Your task to perform on an android device: Open Reddit.com Image 0: 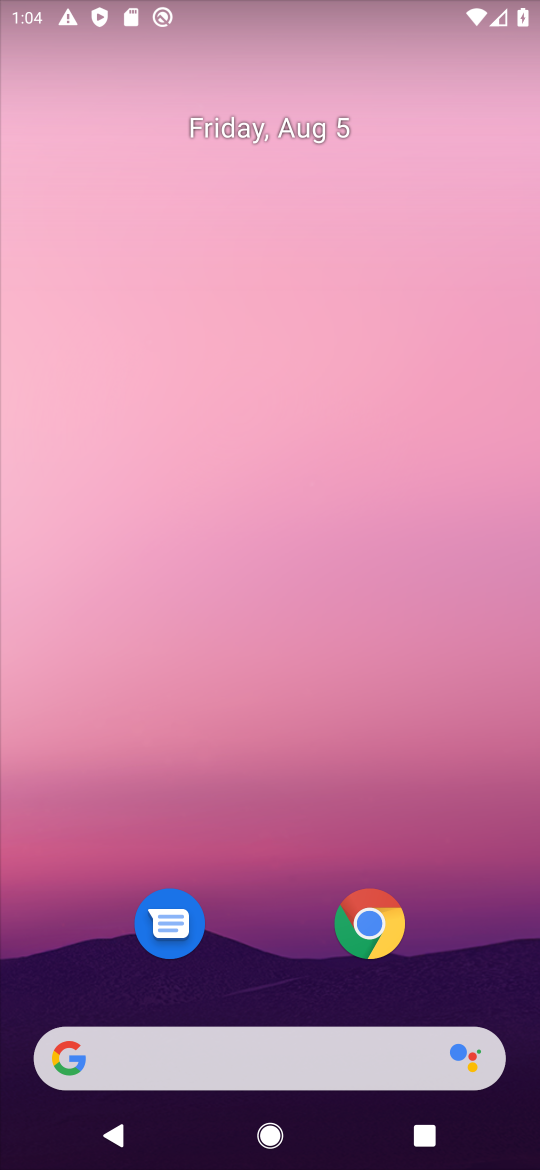
Step 0: click (364, 921)
Your task to perform on an android device: Open Reddit.com Image 1: 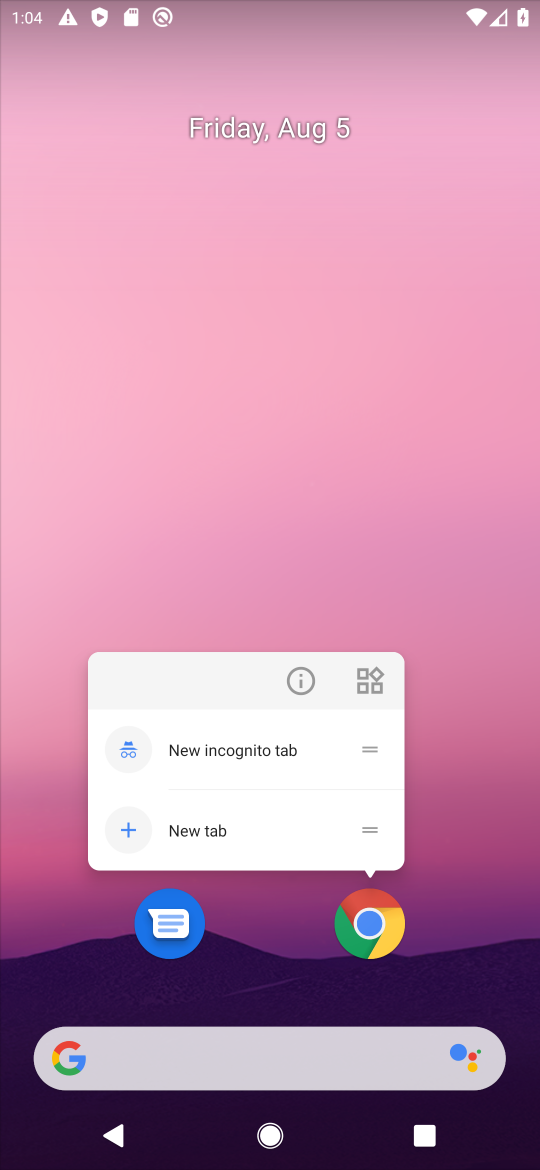
Step 1: click (374, 924)
Your task to perform on an android device: Open Reddit.com Image 2: 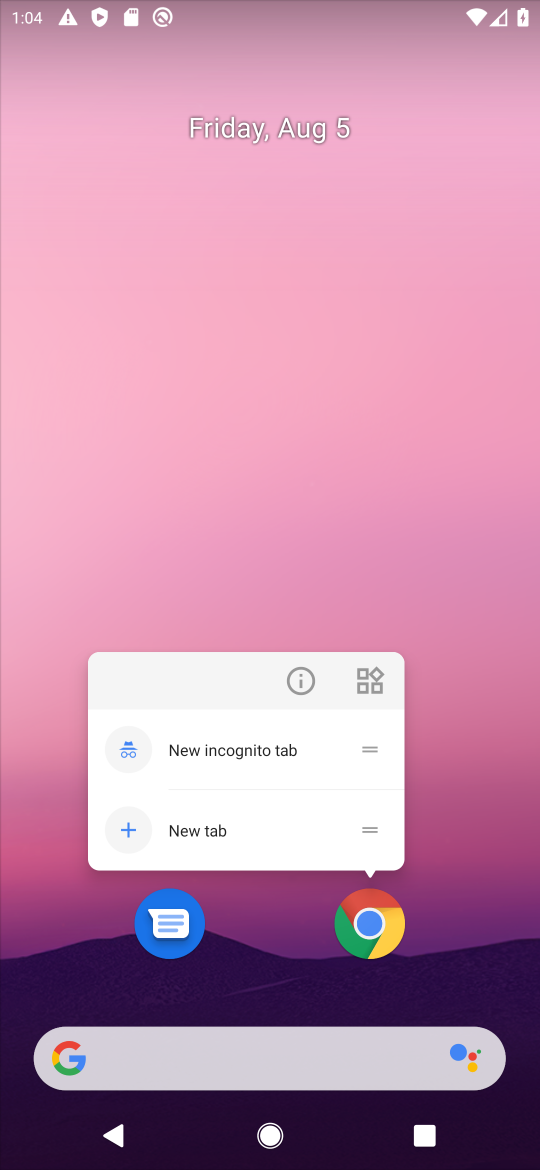
Step 2: click (374, 930)
Your task to perform on an android device: Open Reddit.com Image 3: 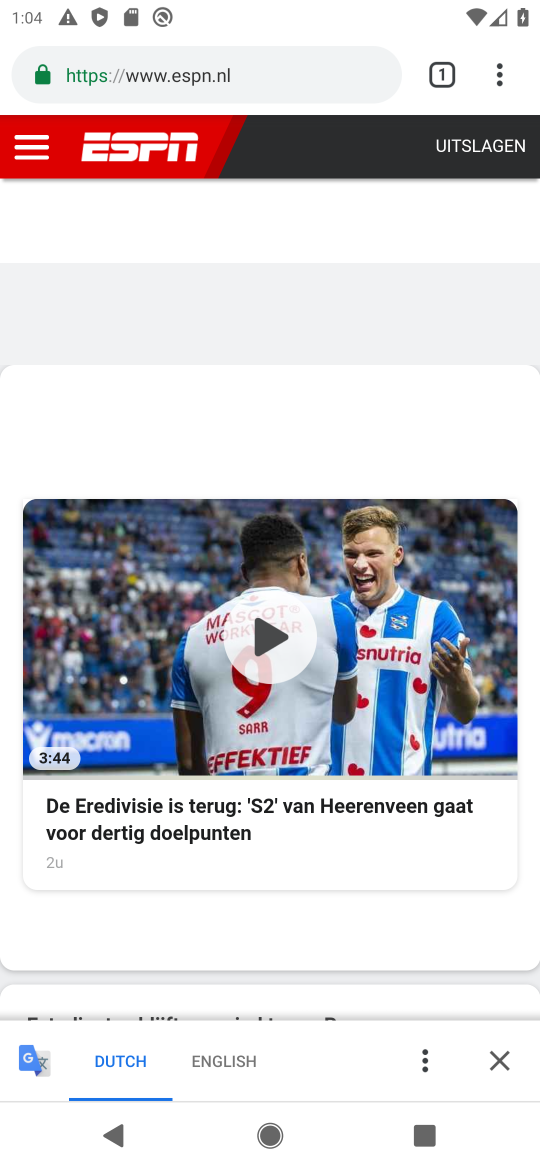
Step 3: click (447, 80)
Your task to perform on an android device: Open Reddit.com Image 4: 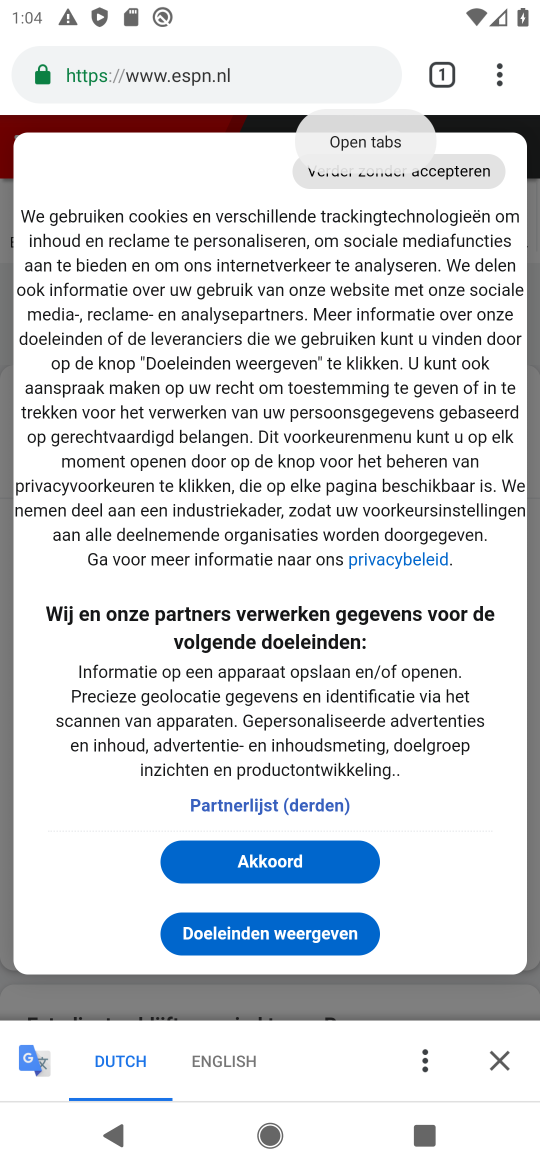
Step 4: click (445, 72)
Your task to perform on an android device: Open Reddit.com Image 5: 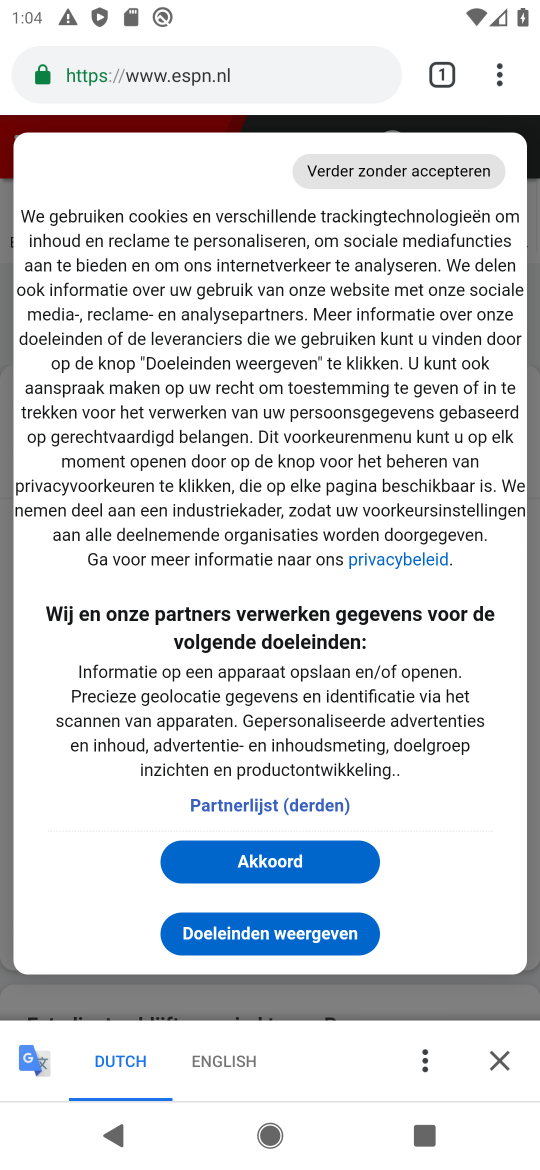
Step 5: click (444, 72)
Your task to perform on an android device: Open Reddit.com Image 6: 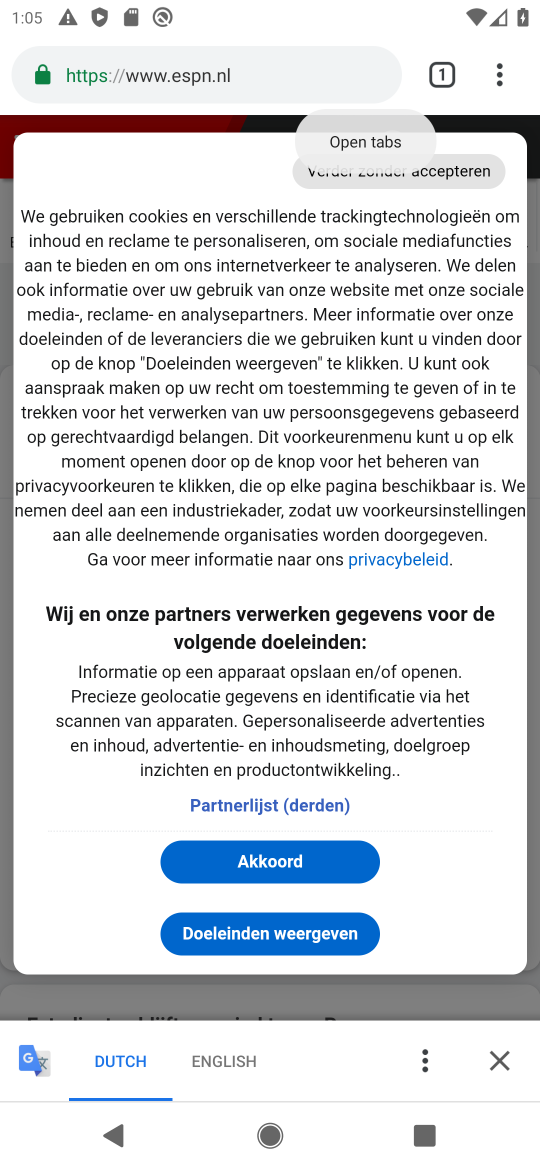
Step 6: click (445, 74)
Your task to perform on an android device: Open Reddit.com Image 7: 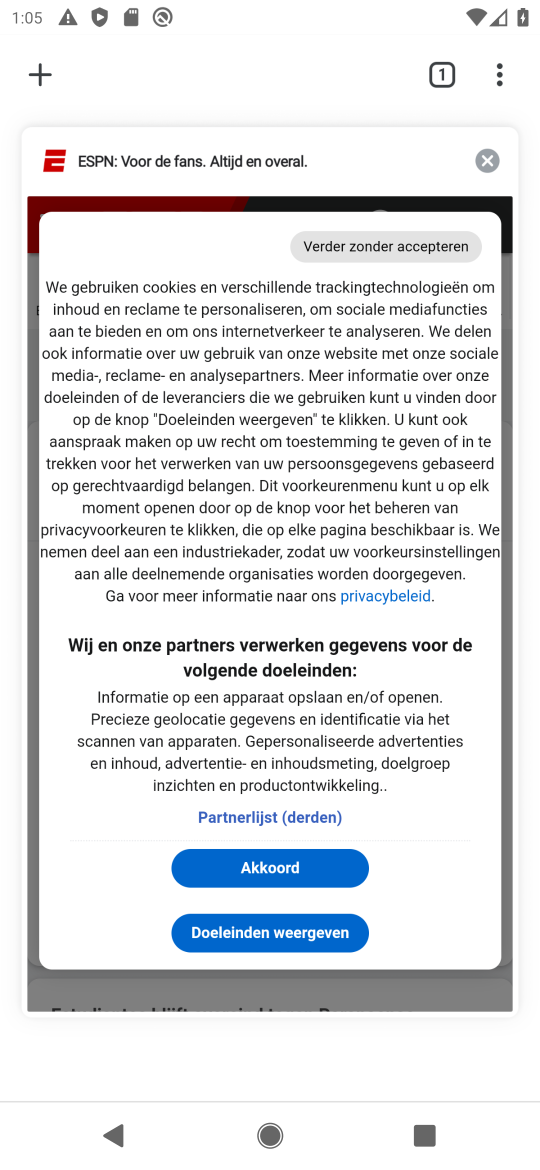
Step 7: click (36, 71)
Your task to perform on an android device: Open Reddit.com Image 8: 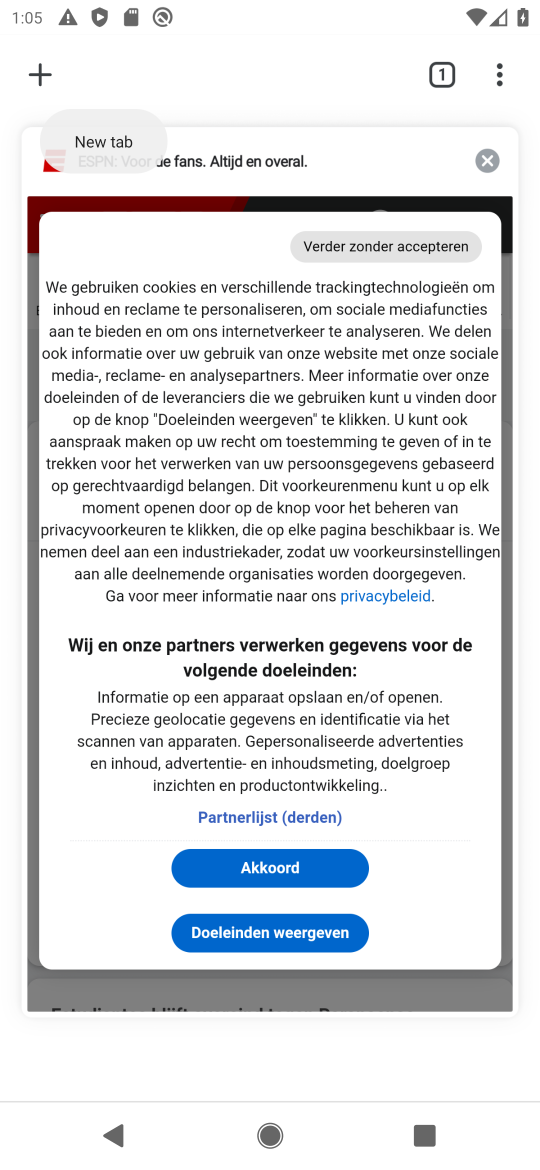
Step 8: click (36, 71)
Your task to perform on an android device: Open Reddit.com Image 9: 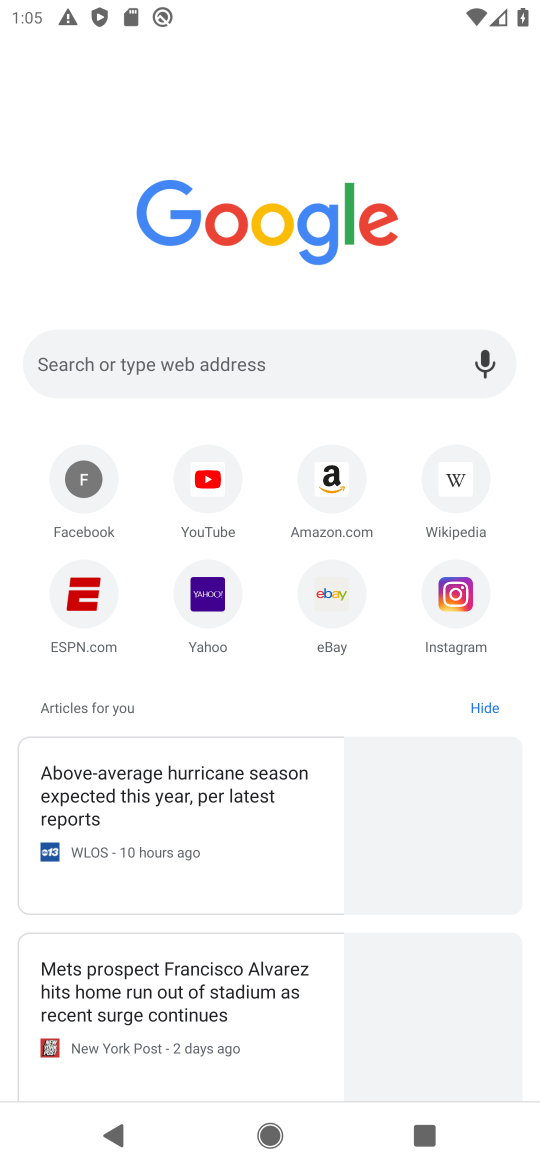
Step 9: click (36, 71)
Your task to perform on an android device: Open Reddit.com Image 10: 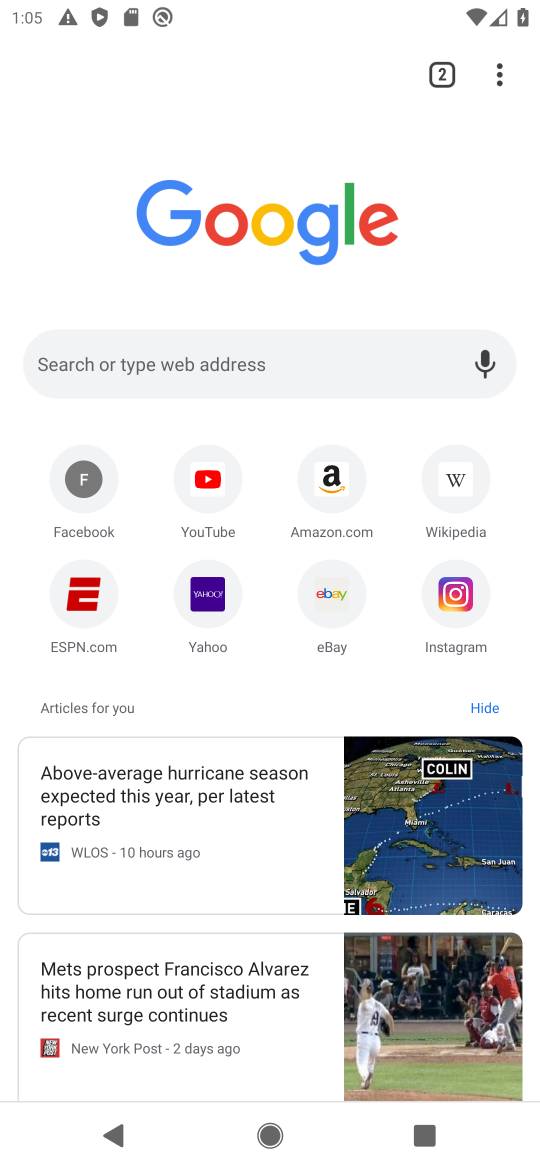
Step 10: type "Reddit.com"
Your task to perform on an android device: Open Reddit.com Image 11: 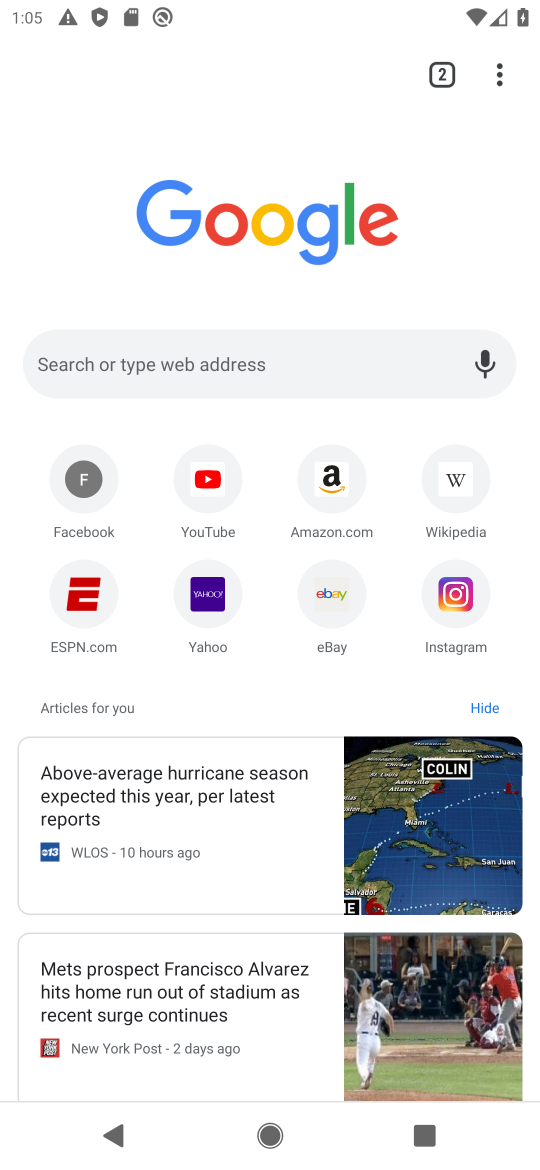
Step 11: click (322, 397)
Your task to perform on an android device: Open Reddit.com Image 12: 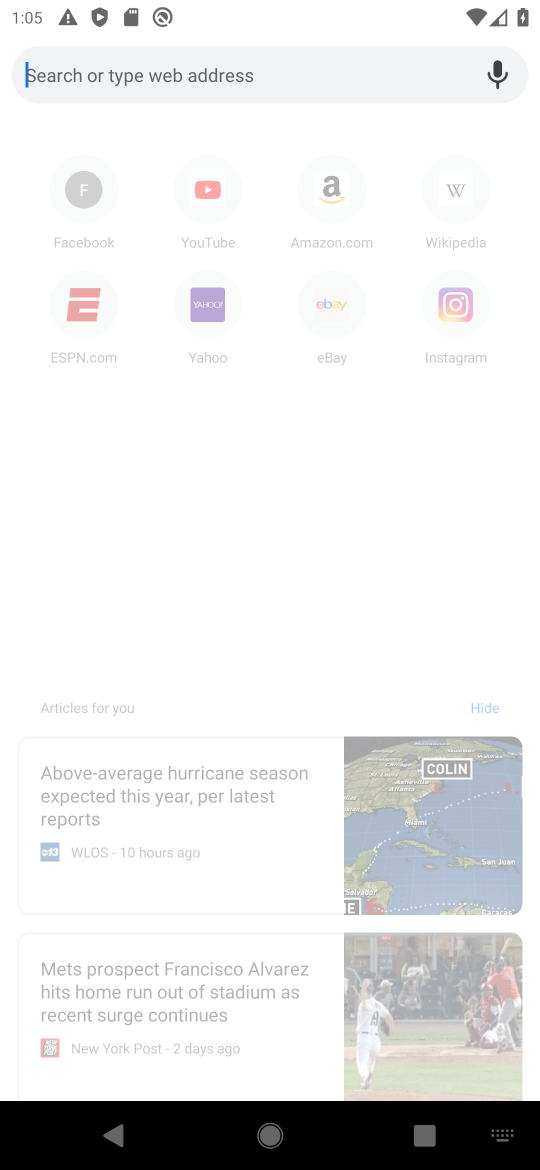
Step 12: type "Reddit.com"
Your task to perform on an android device: Open Reddit.com Image 13: 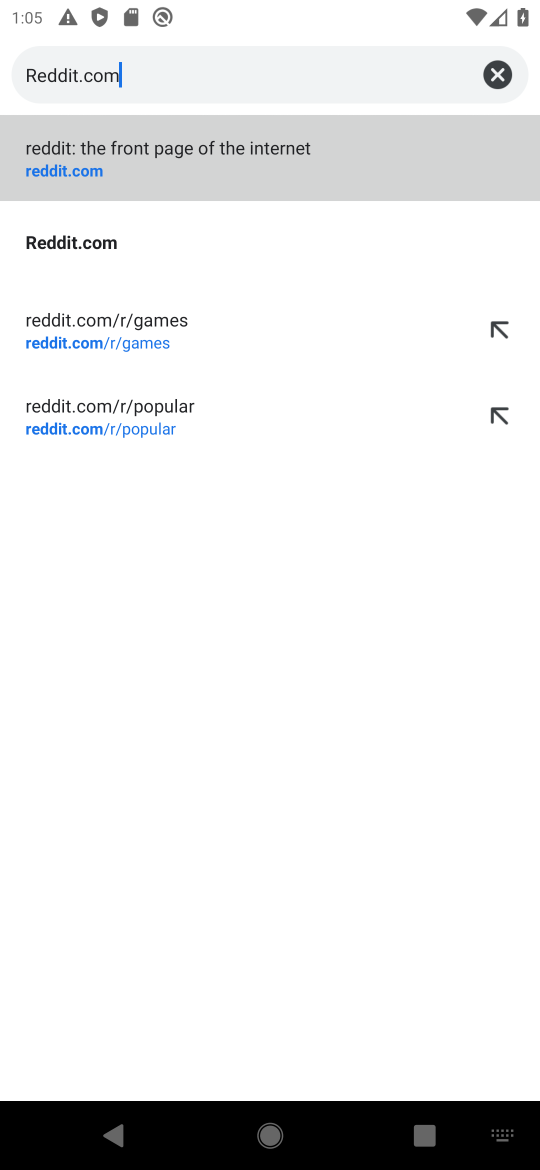
Step 13: click (60, 143)
Your task to perform on an android device: Open Reddit.com Image 14: 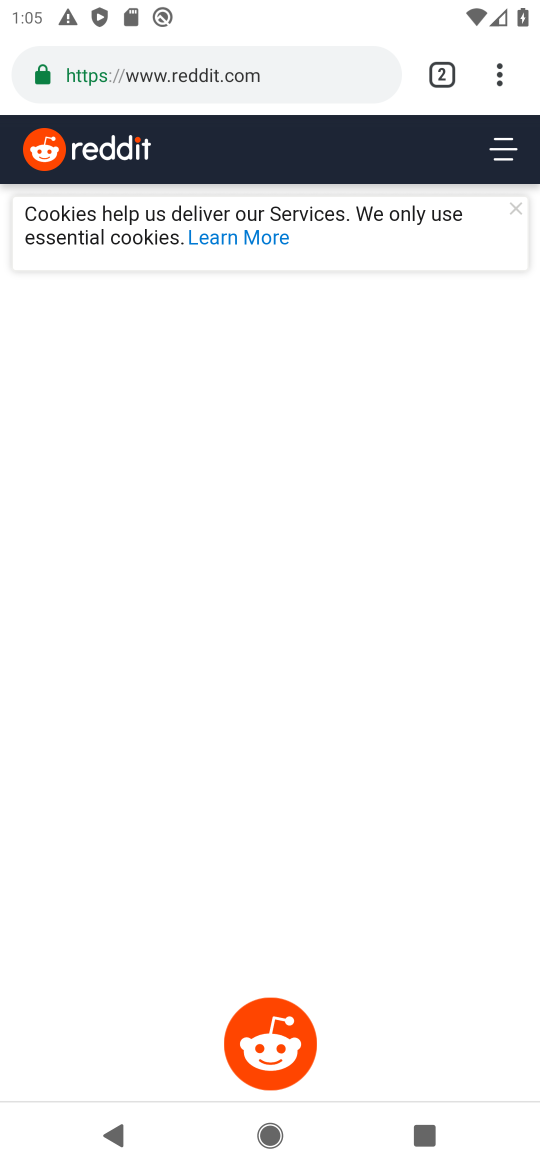
Step 14: task complete